Your task to perform on an android device: Open calendar and show me the third week of next month Image 0: 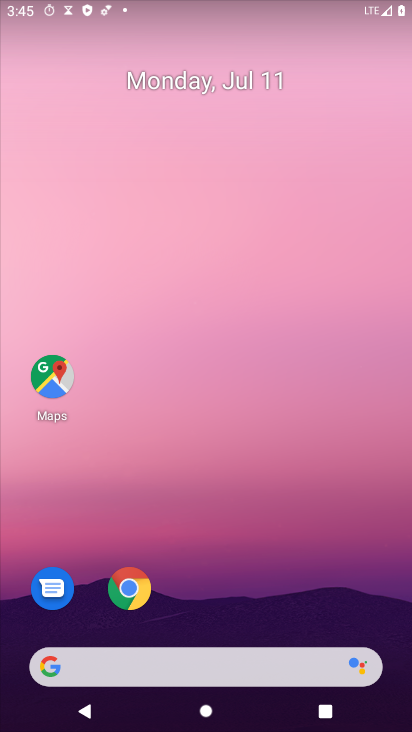
Step 0: drag from (218, 612) to (218, 225)
Your task to perform on an android device: Open calendar and show me the third week of next month Image 1: 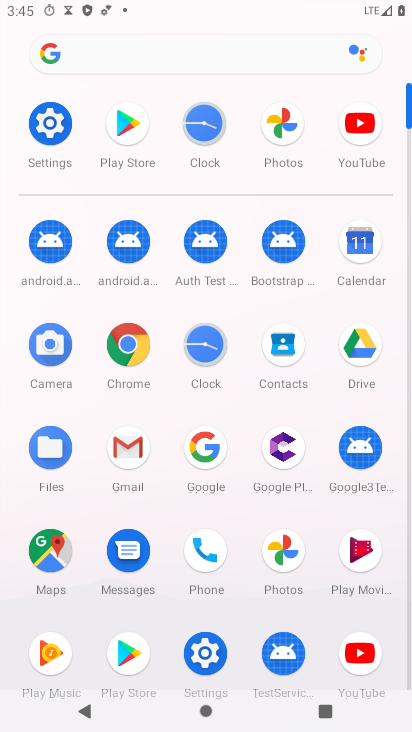
Step 1: click (363, 238)
Your task to perform on an android device: Open calendar and show me the third week of next month Image 2: 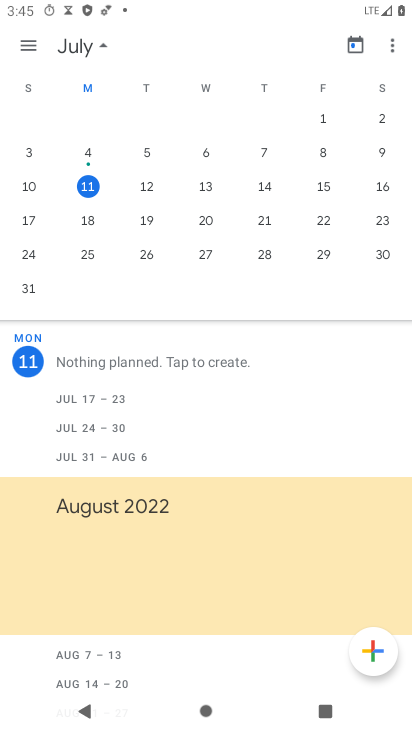
Step 2: drag from (377, 226) to (0, 213)
Your task to perform on an android device: Open calendar and show me the third week of next month Image 3: 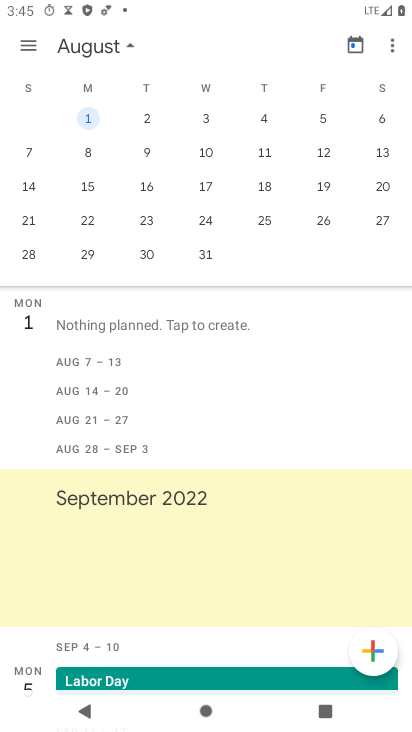
Step 3: click (32, 191)
Your task to perform on an android device: Open calendar and show me the third week of next month Image 4: 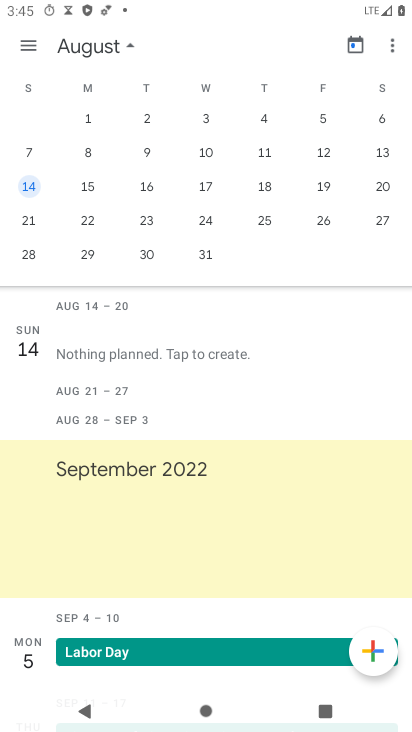
Step 4: task complete